Your task to perform on an android device: open chrome privacy settings Image 0: 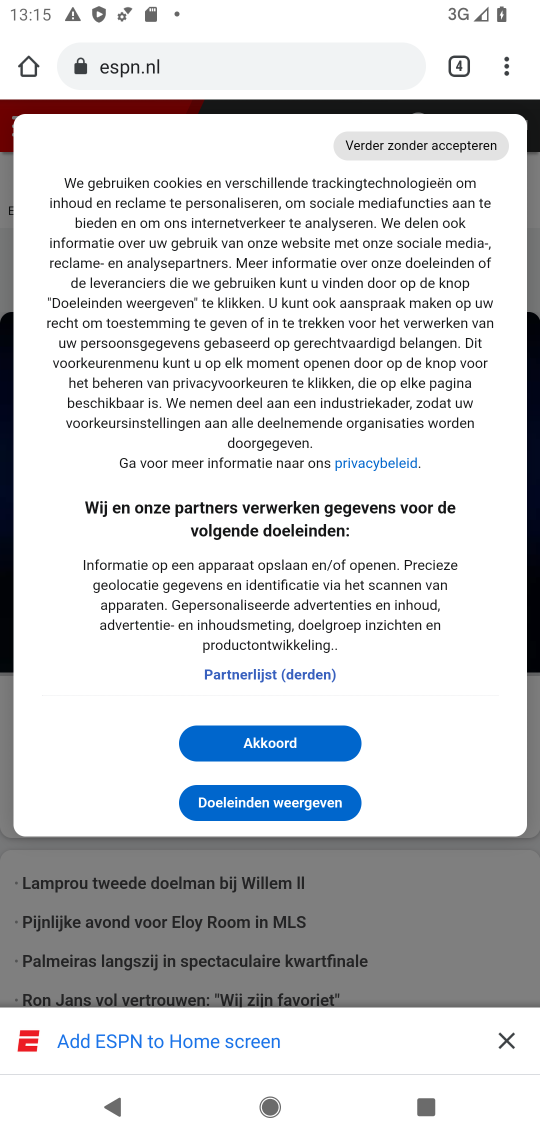
Step 0: drag from (324, 912) to (447, 256)
Your task to perform on an android device: open chrome privacy settings Image 1: 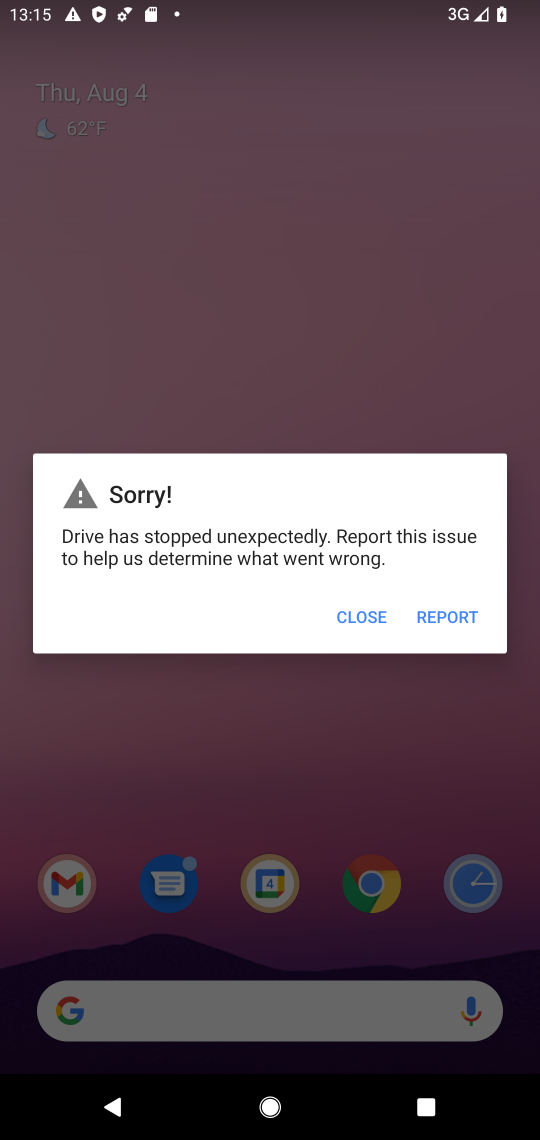
Step 1: click (350, 623)
Your task to perform on an android device: open chrome privacy settings Image 2: 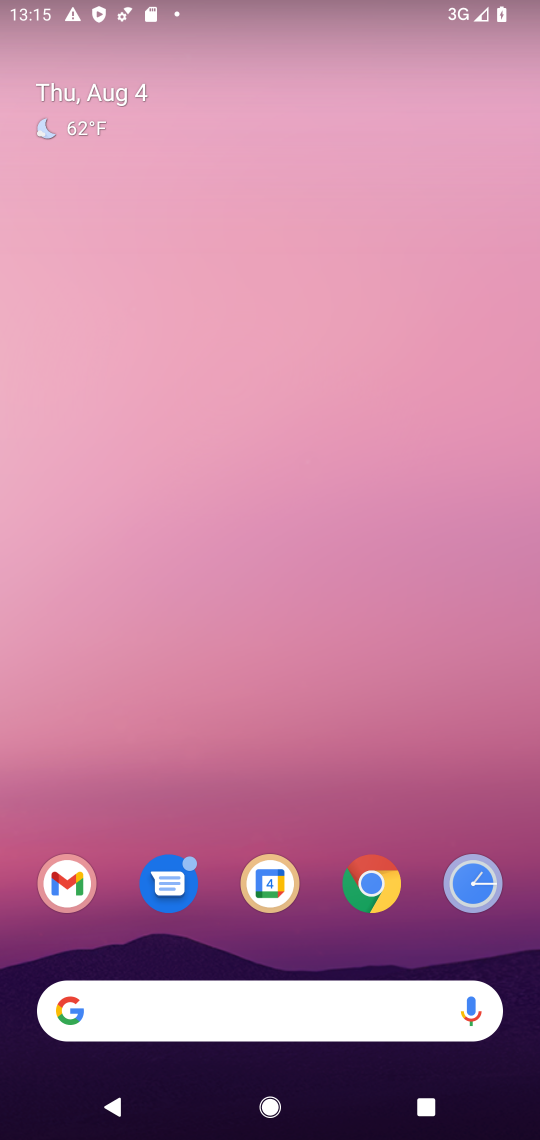
Step 2: drag from (227, 912) to (420, 256)
Your task to perform on an android device: open chrome privacy settings Image 3: 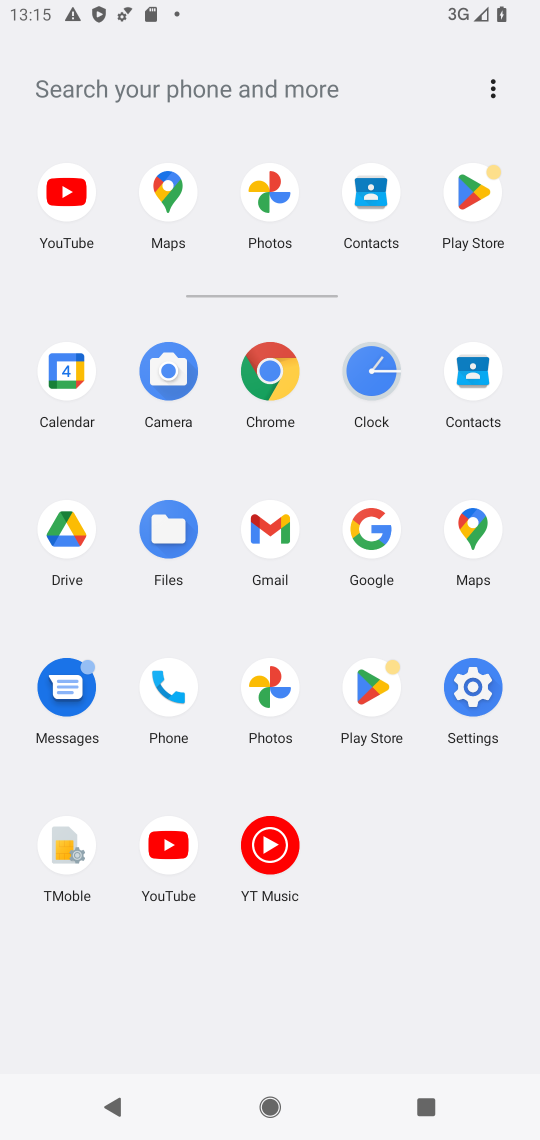
Step 3: click (492, 690)
Your task to perform on an android device: open chrome privacy settings Image 4: 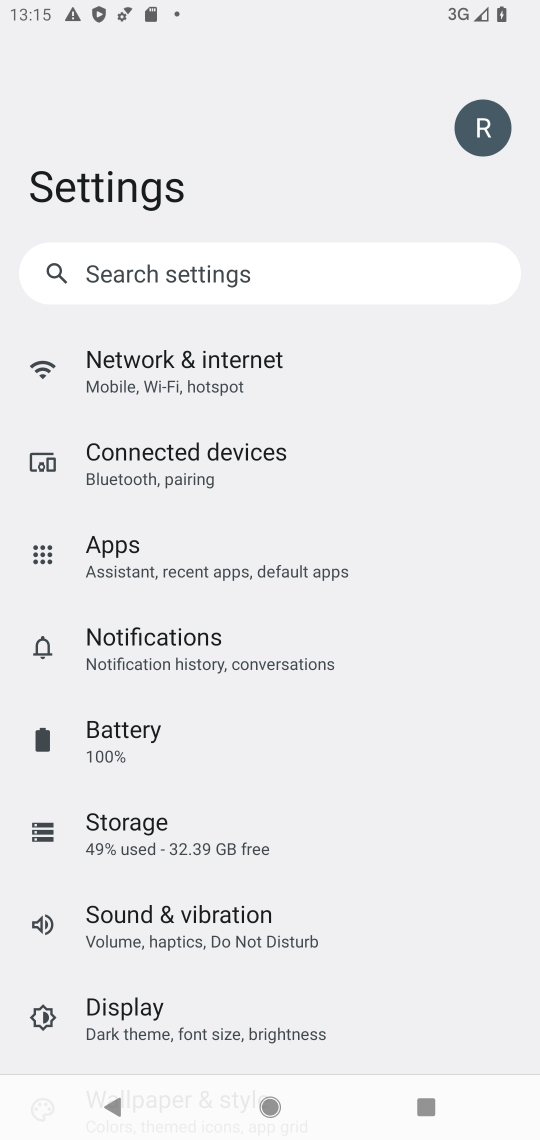
Step 4: drag from (292, 849) to (329, 306)
Your task to perform on an android device: open chrome privacy settings Image 5: 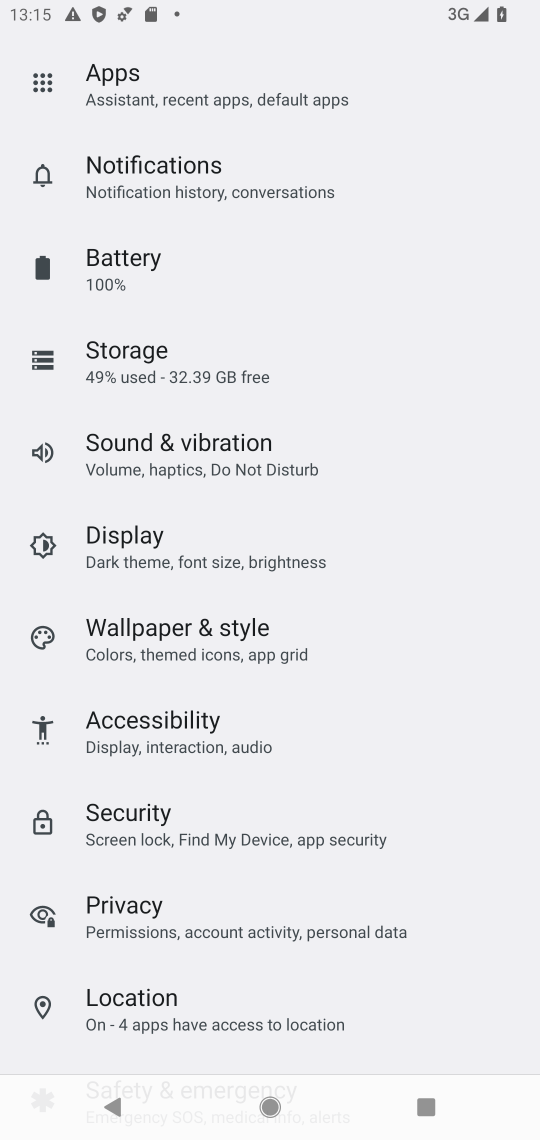
Step 5: click (160, 915)
Your task to perform on an android device: open chrome privacy settings Image 6: 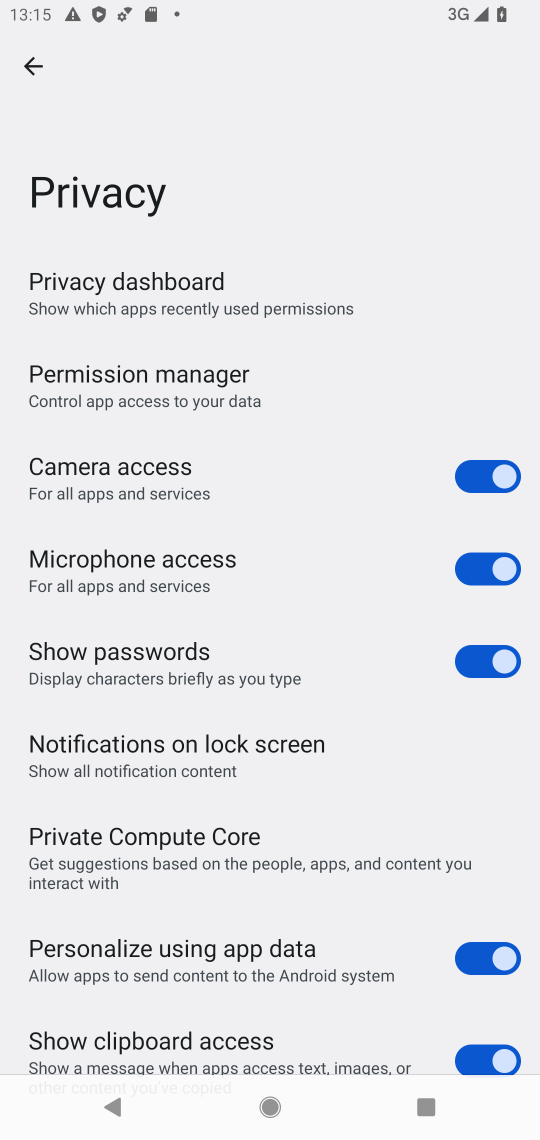
Step 6: task complete